Your task to perform on an android device: What's the weather going to be this weekend? Image 0: 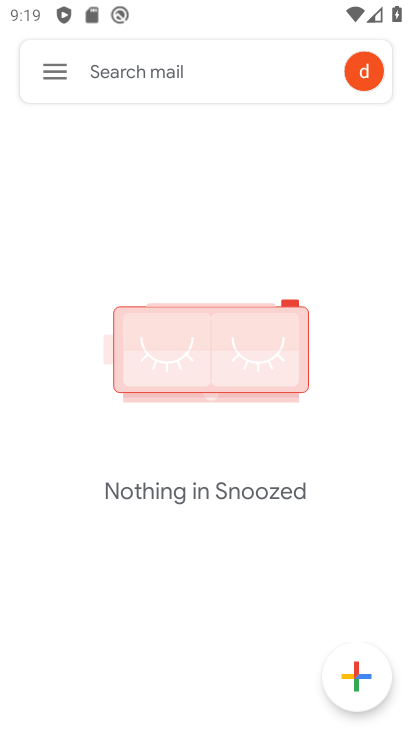
Step 0: press home button
Your task to perform on an android device: What's the weather going to be this weekend? Image 1: 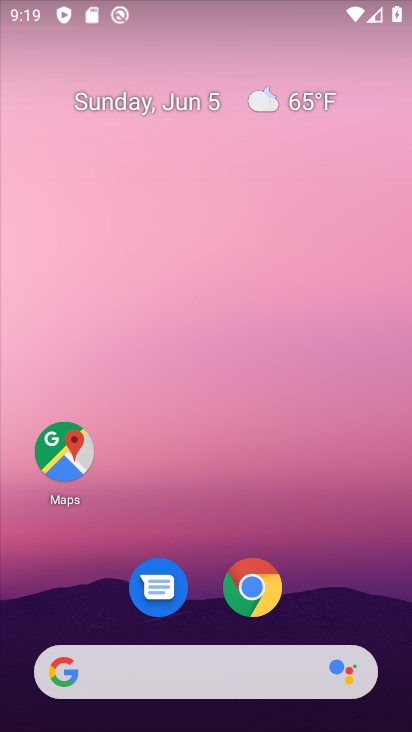
Step 1: drag from (5, 310) to (390, 274)
Your task to perform on an android device: What's the weather going to be this weekend? Image 2: 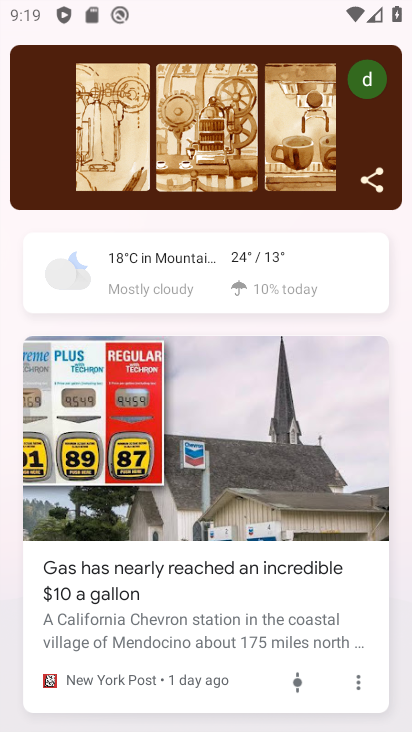
Step 2: click (292, 266)
Your task to perform on an android device: What's the weather going to be this weekend? Image 3: 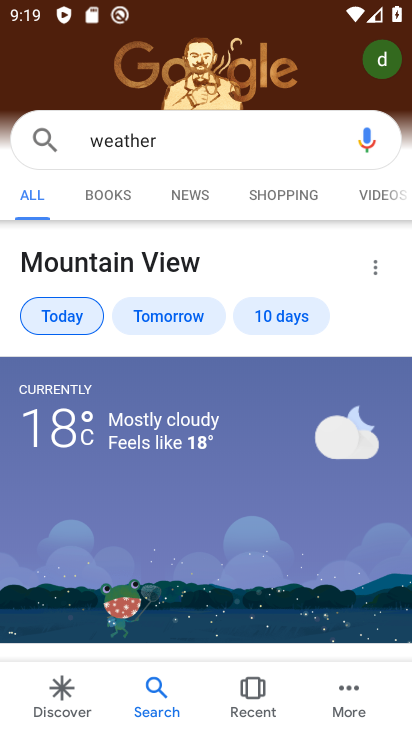
Step 3: click (295, 322)
Your task to perform on an android device: What's the weather going to be this weekend? Image 4: 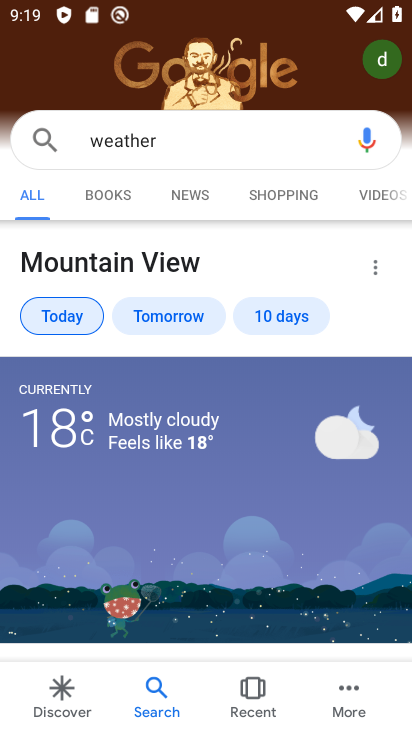
Step 4: click (295, 322)
Your task to perform on an android device: What's the weather going to be this weekend? Image 5: 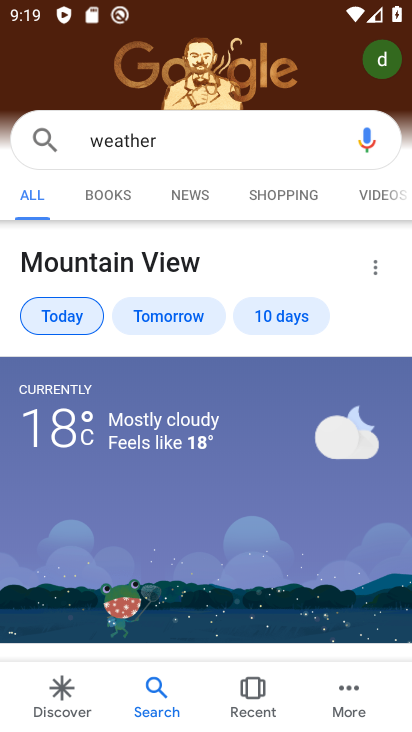
Step 5: click (295, 322)
Your task to perform on an android device: What's the weather going to be this weekend? Image 6: 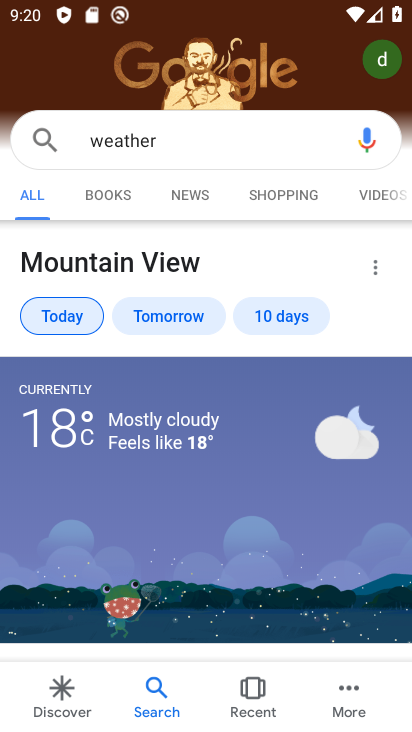
Step 6: drag from (246, 548) to (379, 65)
Your task to perform on an android device: What's the weather going to be this weekend? Image 7: 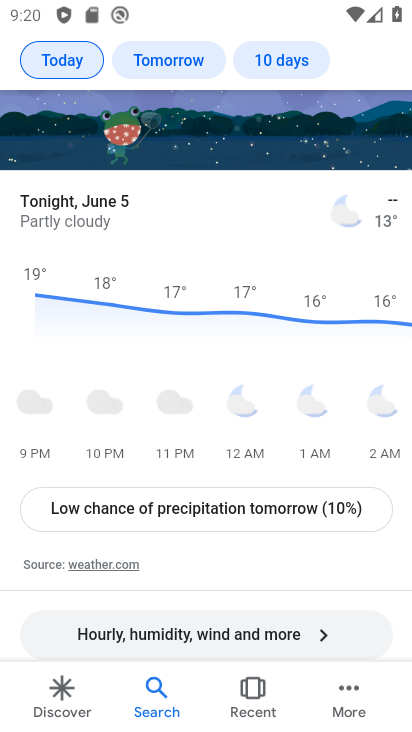
Step 7: drag from (223, 532) to (386, 7)
Your task to perform on an android device: What's the weather going to be this weekend? Image 8: 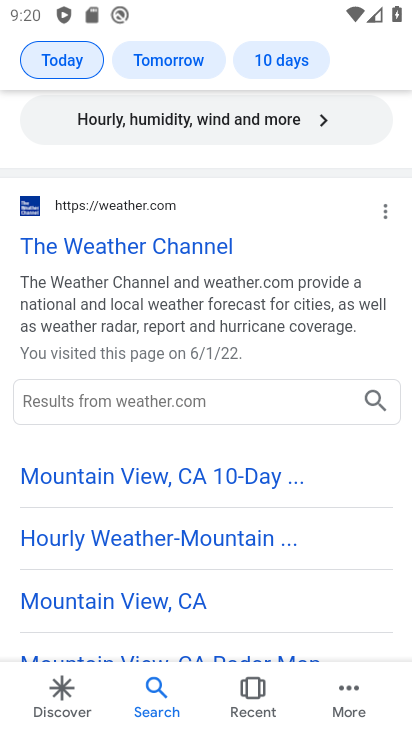
Step 8: click (169, 245)
Your task to perform on an android device: What's the weather going to be this weekend? Image 9: 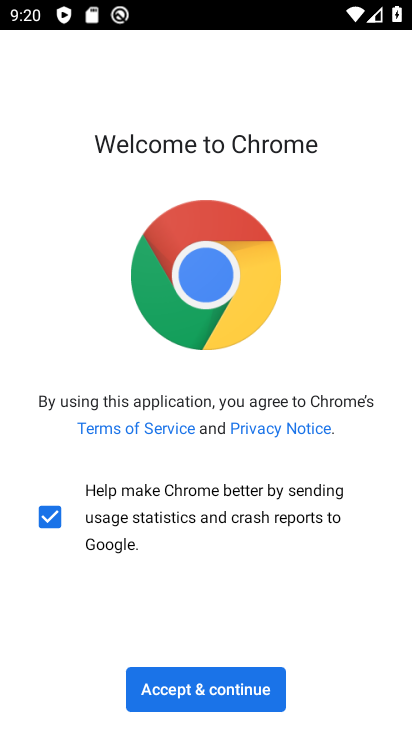
Step 9: click (229, 690)
Your task to perform on an android device: What's the weather going to be this weekend? Image 10: 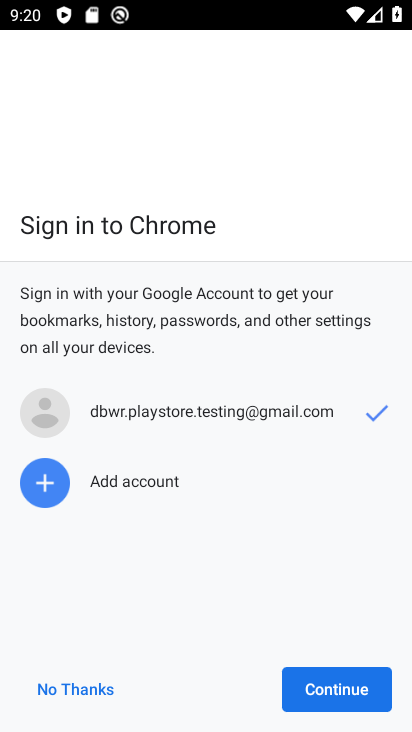
Step 10: click (373, 698)
Your task to perform on an android device: What's the weather going to be this weekend? Image 11: 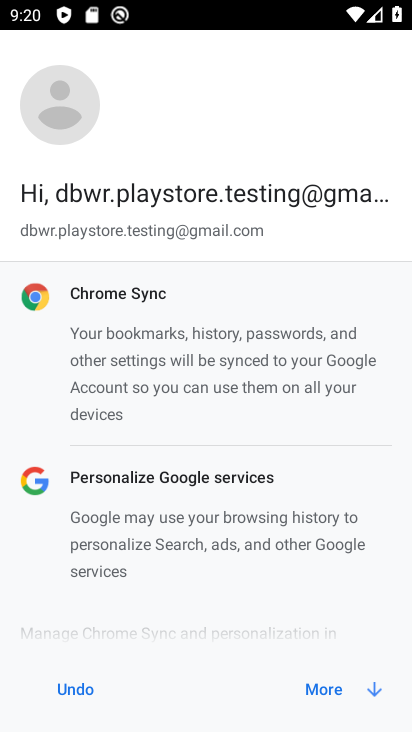
Step 11: click (324, 699)
Your task to perform on an android device: What's the weather going to be this weekend? Image 12: 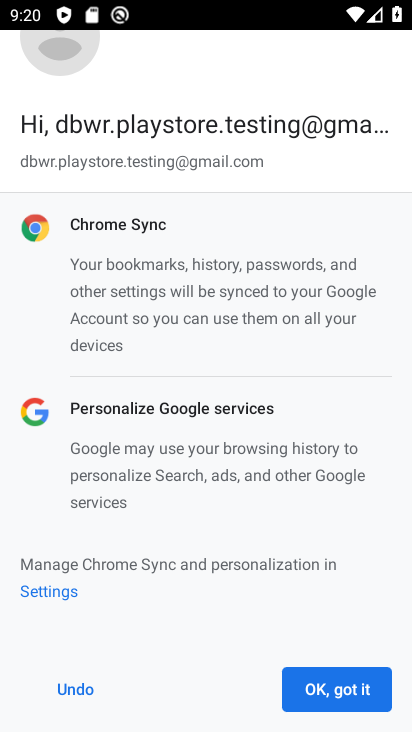
Step 12: click (326, 700)
Your task to perform on an android device: What's the weather going to be this weekend? Image 13: 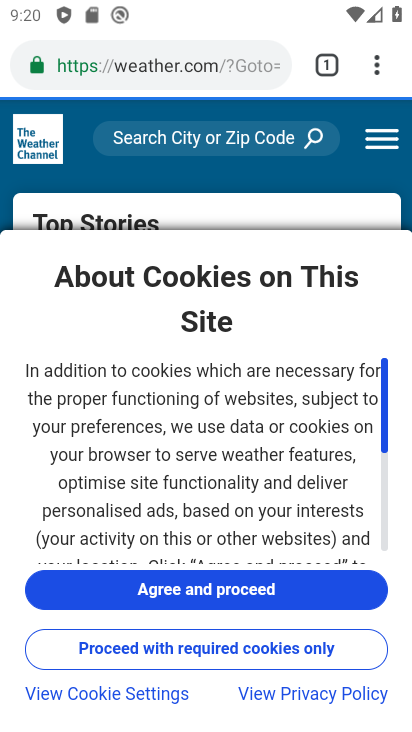
Step 13: click (244, 601)
Your task to perform on an android device: What's the weather going to be this weekend? Image 14: 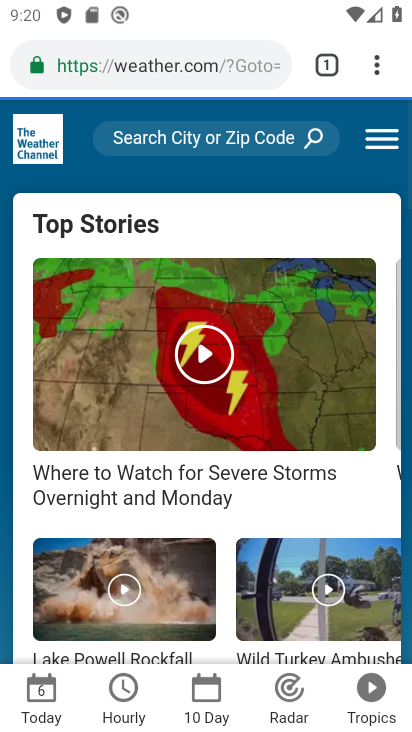
Step 14: click (199, 697)
Your task to perform on an android device: What's the weather going to be this weekend? Image 15: 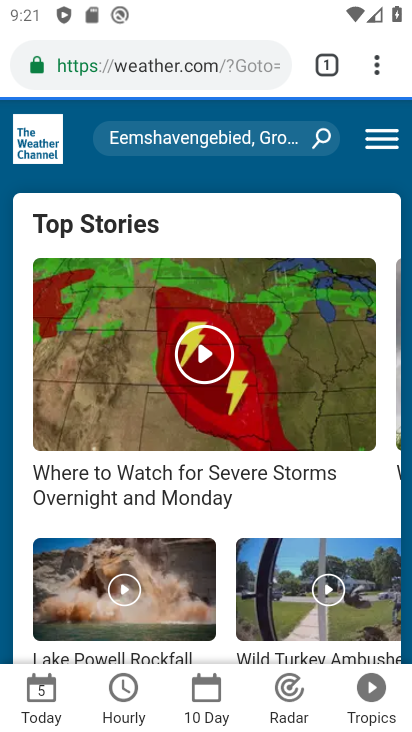
Step 15: click (215, 693)
Your task to perform on an android device: What's the weather going to be this weekend? Image 16: 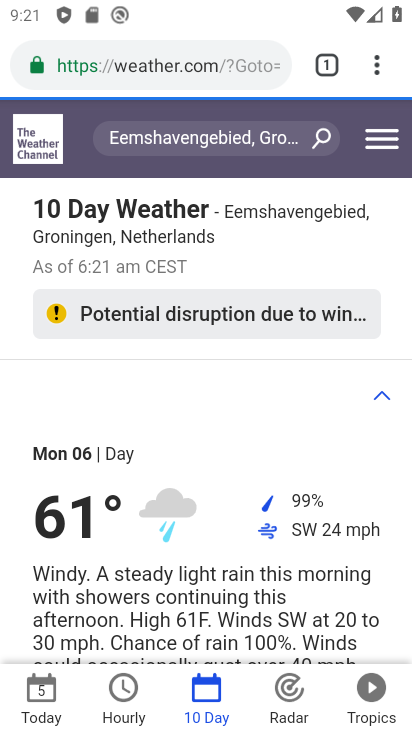
Step 16: task complete